Your task to perform on an android device: Go to sound settings Image 0: 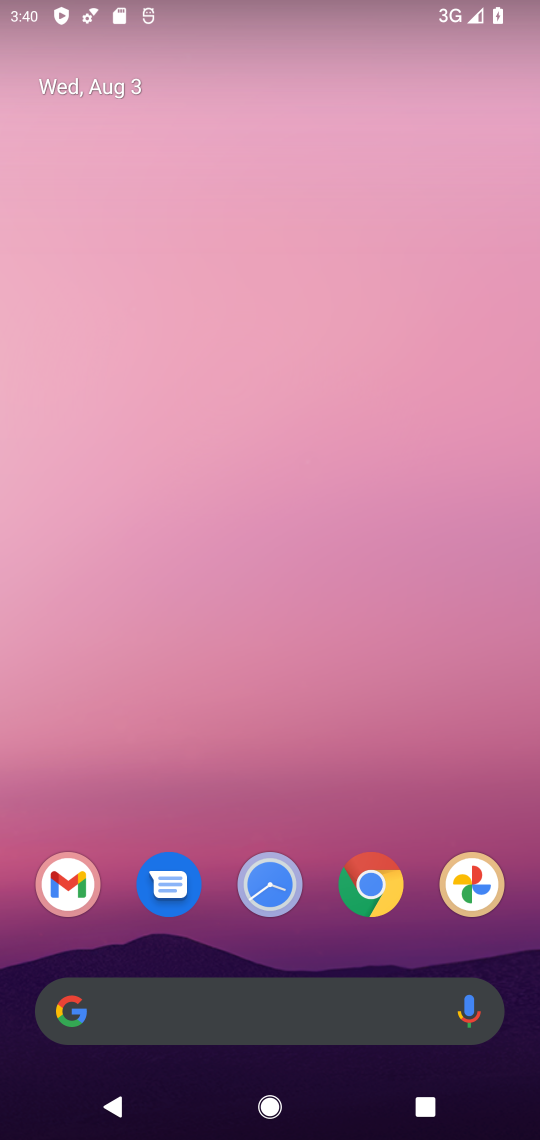
Step 0: drag from (219, 945) to (205, 207)
Your task to perform on an android device: Go to sound settings Image 1: 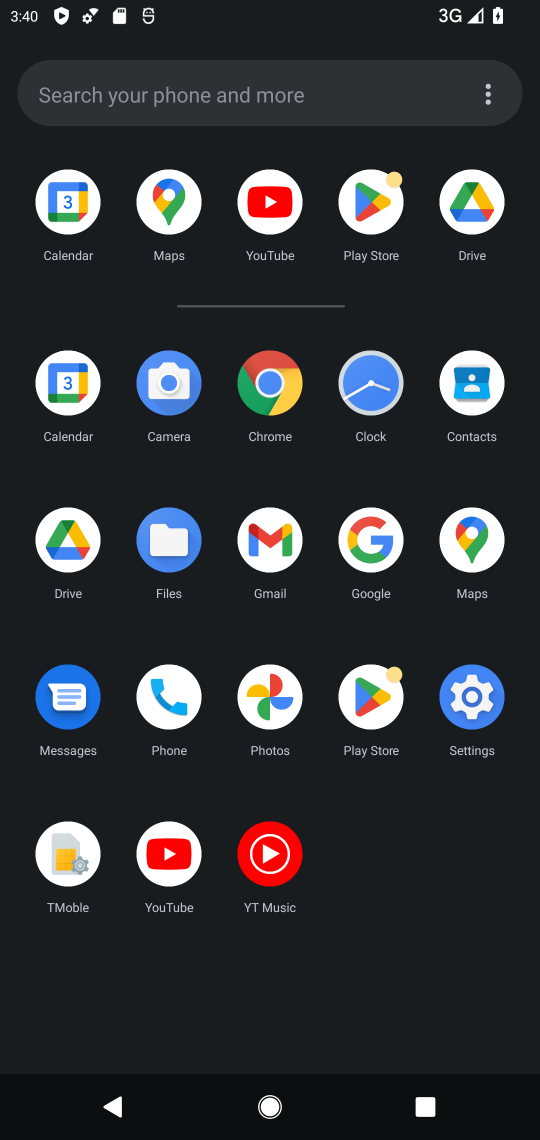
Step 1: click (457, 689)
Your task to perform on an android device: Go to sound settings Image 2: 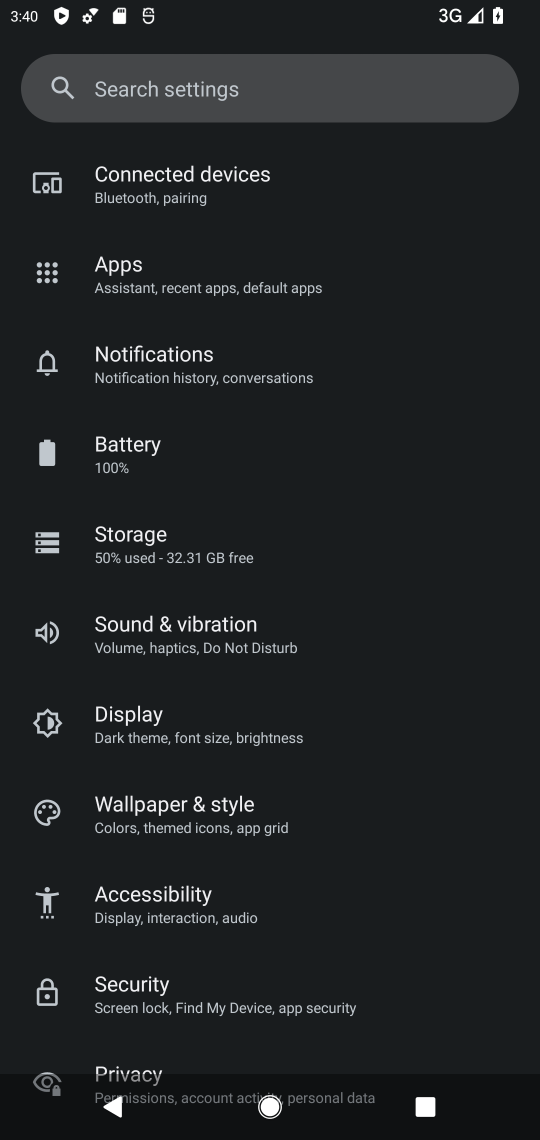
Step 2: click (188, 619)
Your task to perform on an android device: Go to sound settings Image 3: 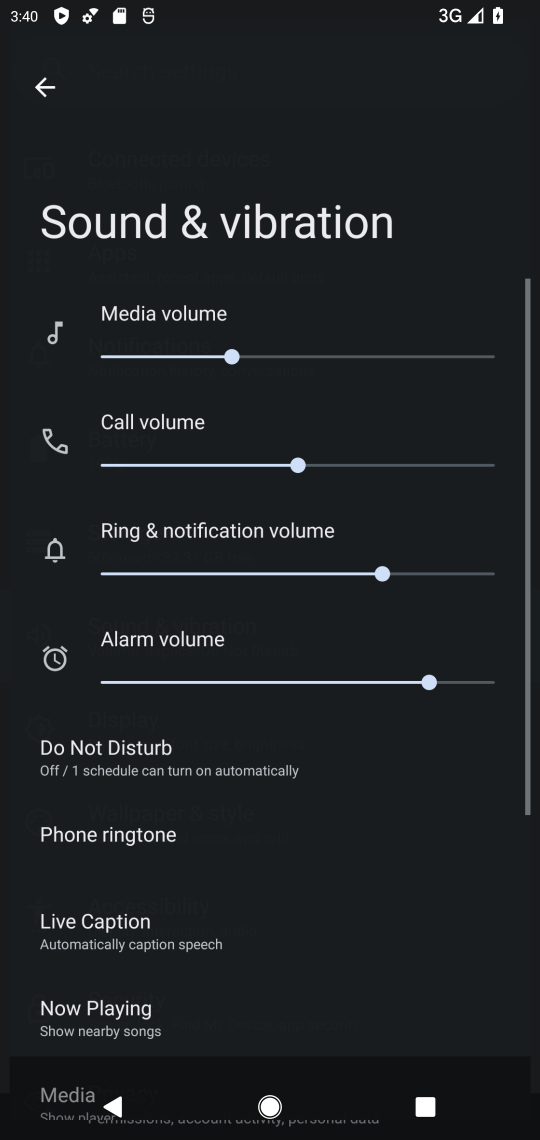
Step 3: task complete